Your task to perform on an android device: What's the weather? Image 0: 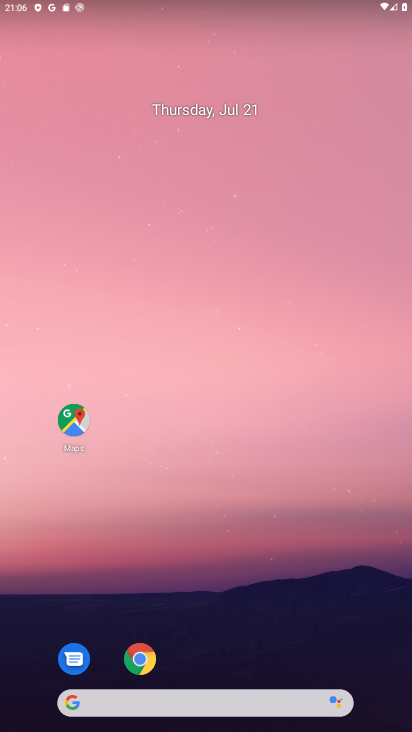
Step 0: press home button
Your task to perform on an android device: What's the weather? Image 1: 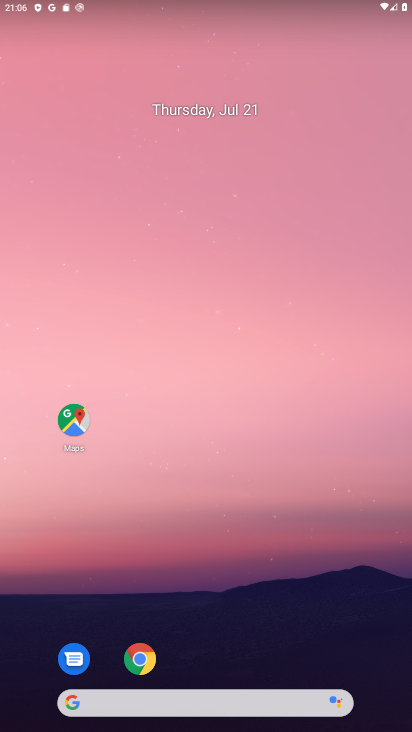
Step 1: click (145, 663)
Your task to perform on an android device: What's the weather? Image 2: 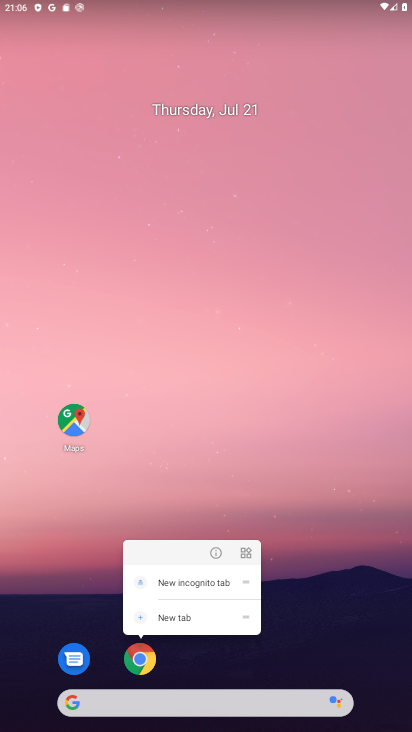
Step 2: click (145, 663)
Your task to perform on an android device: What's the weather? Image 3: 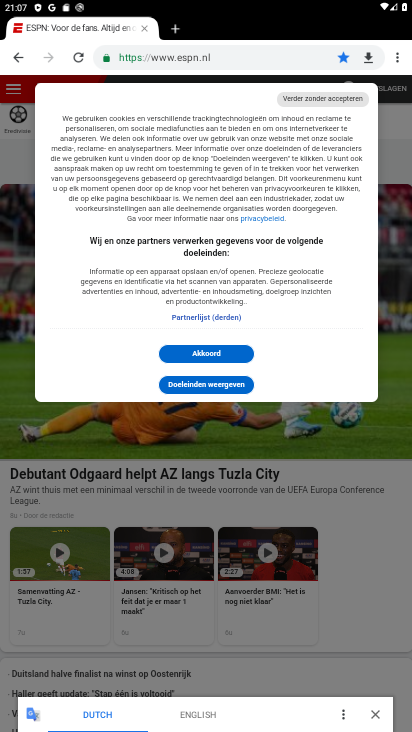
Step 3: type "What's the weather?"
Your task to perform on an android device: What's the weather? Image 4: 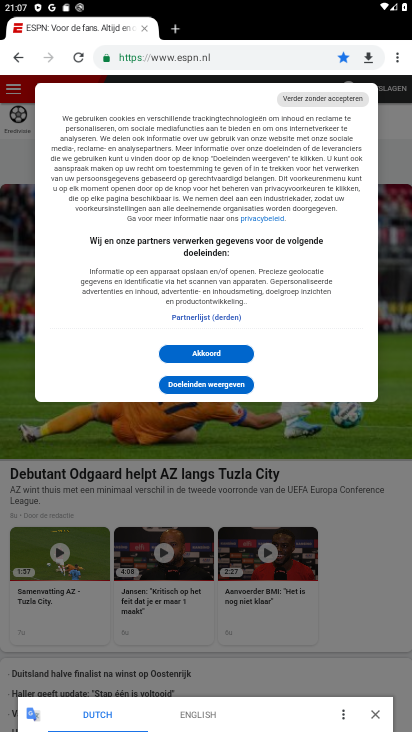
Step 4: click (197, 50)
Your task to perform on an android device: What's the weather? Image 5: 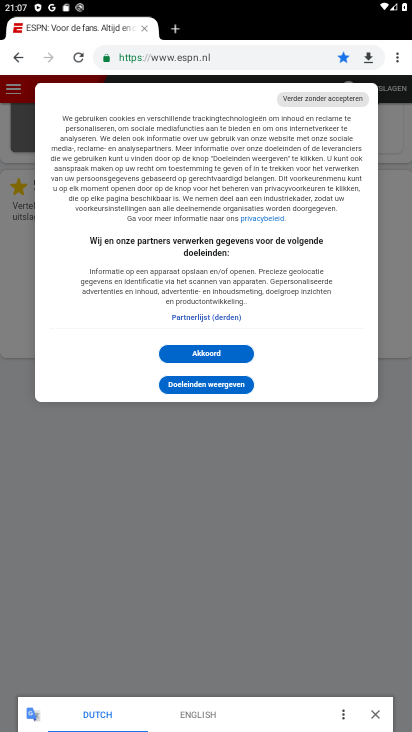
Step 5: click (197, 50)
Your task to perform on an android device: What's the weather? Image 6: 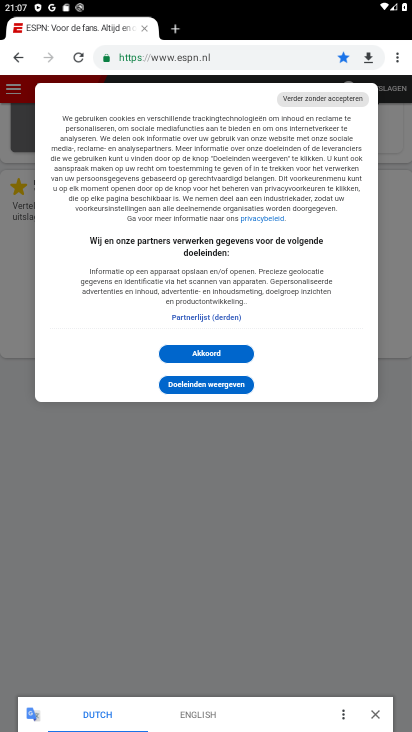
Step 6: click (197, 50)
Your task to perform on an android device: What's the weather? Image 7: 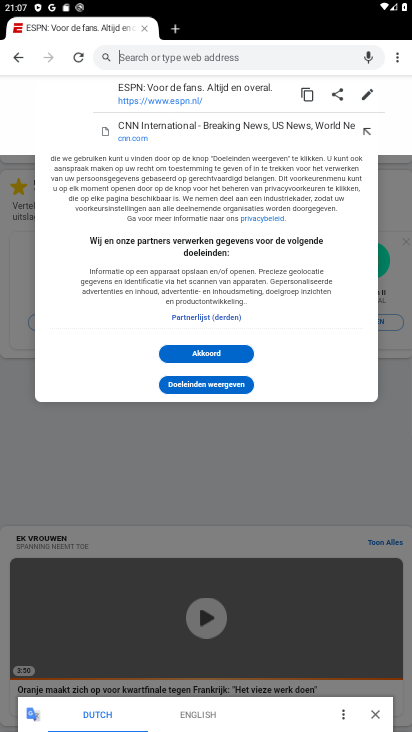
Step 7: click (197, 50)
Your task to perform on an android device: What's the weather? Image 8: 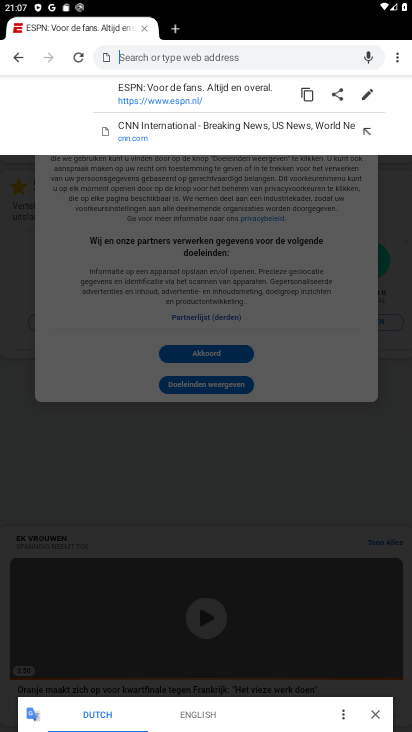
Step 8: click (197, 50)
Your task to perform on an android device: What's the weather? Image 9: 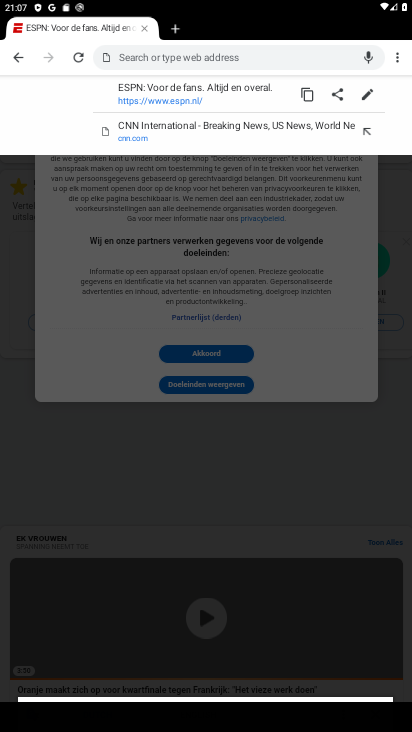
Step 9: click (197, 50)
Your task to perform on an android device: What's the weather? Image 10: 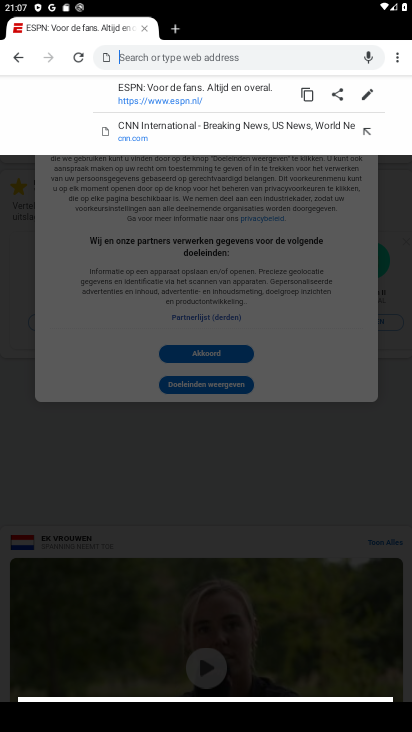
Step 10: type "What's the weather?"
Your task to perform on an android device: What's the weather? Image 11: 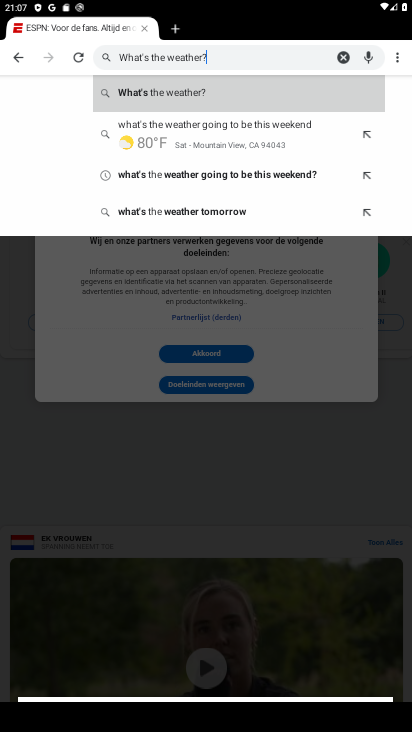
Step 11: click (160, 93)
Your task to perform on an android device: What's the weather? Image 12: 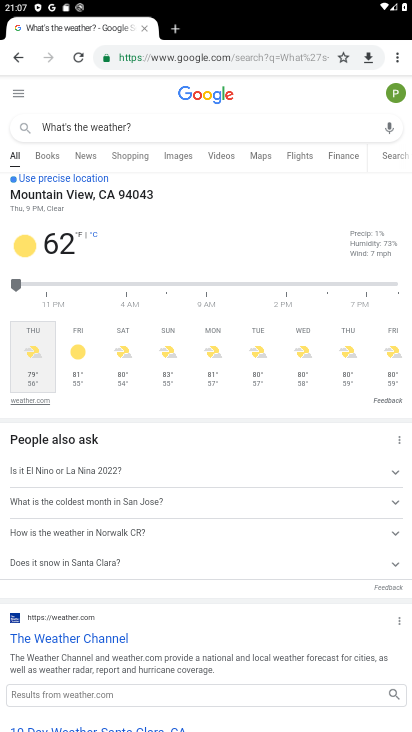
Step 12: task complete